Your task to perform on an android device: Go to wifi settings Image 0: 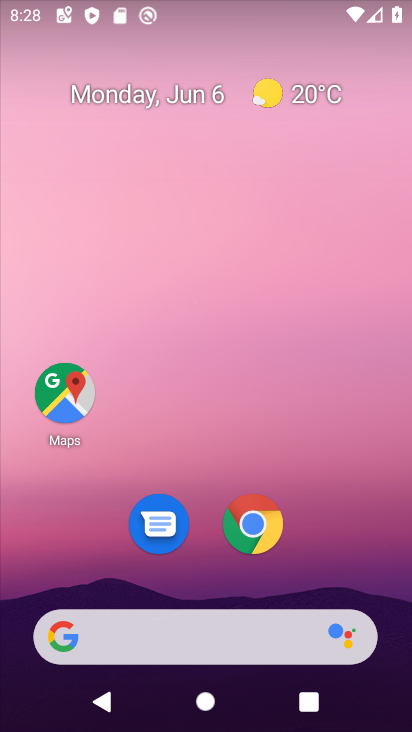
Step 0: drag from (253, 472) to (231, 9)
Your task to perform on an android device: Go to wifi settings Image 1: 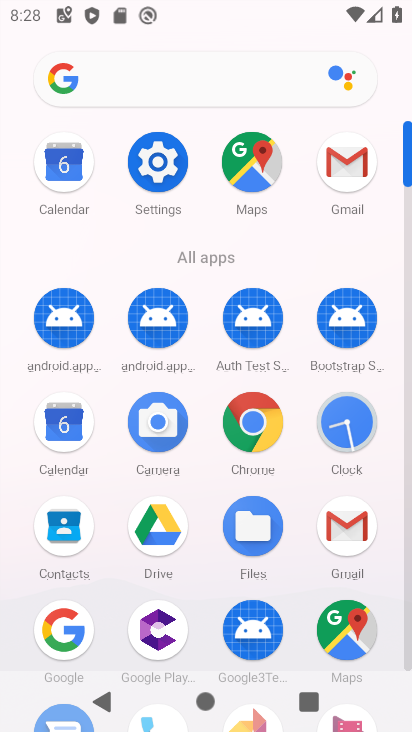
Step 1: click (163, 172)
Your task to perform on an android device: Go to wifi settings Image 2: 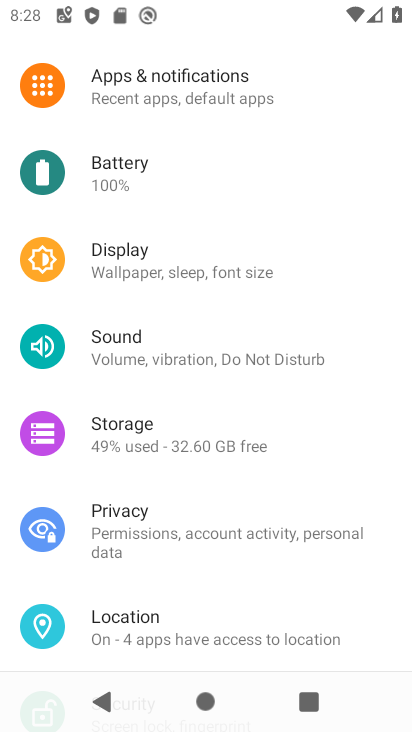
Step 2: drag from (172, 185) to (117, 528)
Your task to perform on an android device: Go to wifi settings Image 3: 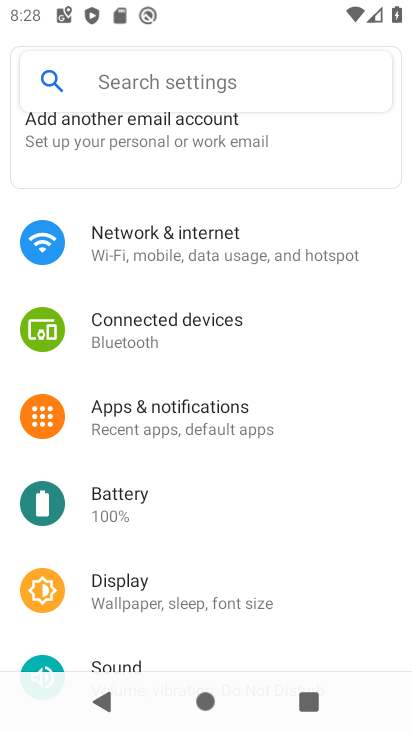
Step 3: click (232, 245)
Your task to perform on an android device: Go to wifi settings Image 4: 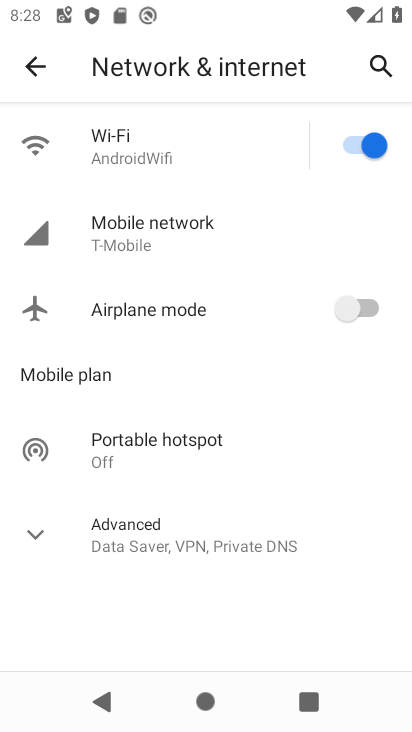
Step 4: click (163, 149)
Your task to perform on an android device: Go to wifi settings Image 5: 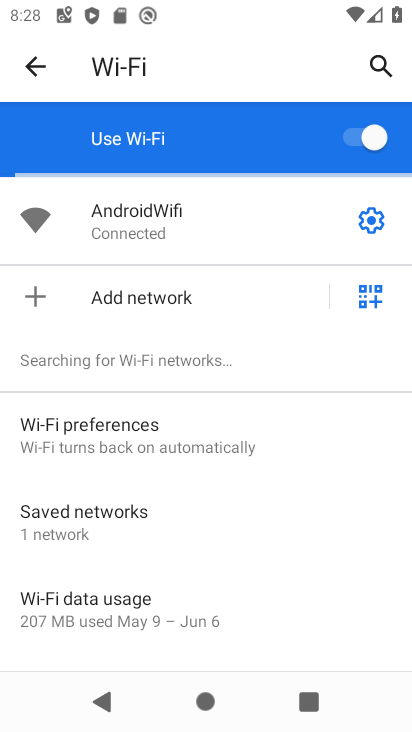
Step 5: task complete